Your task to perform on an android device: What is the news today? Image 0: 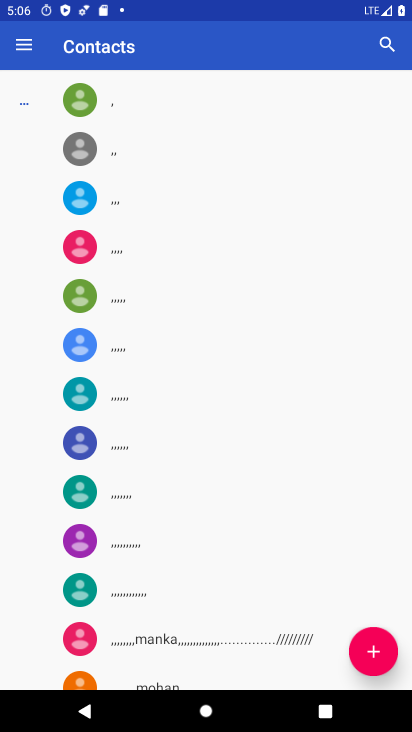
Step 0: drag from (218, 610) to (223, 40)
Your task to perform on an android device: What is the news today? Image 1: 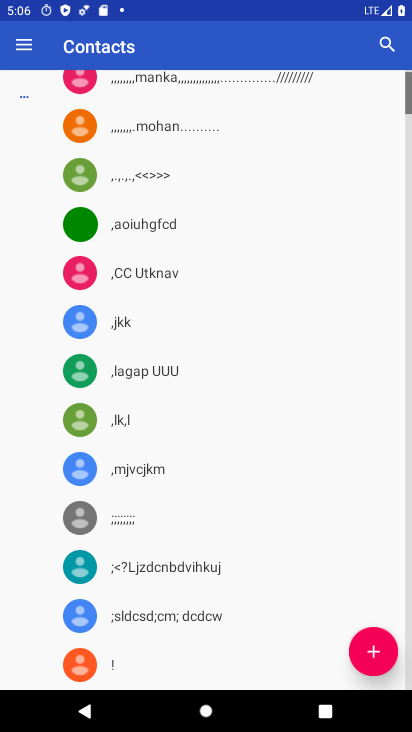
Step 1: press home button
Your task to perform on an android device: What is the news today? Image 2: 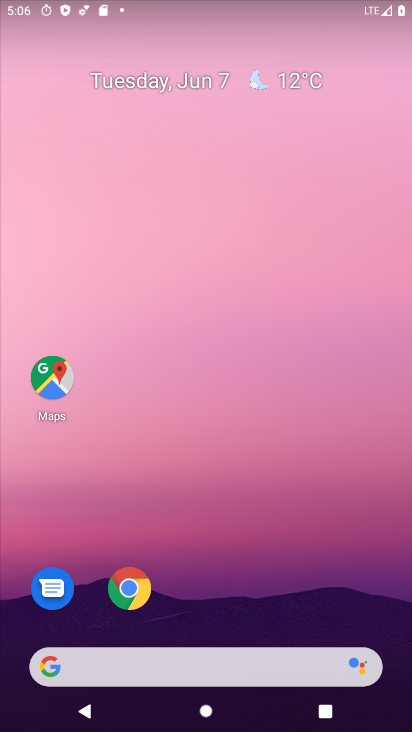
Step 2: drag from (205, 605) to (236, 73)
Your task to perform on an android device: What is the news today? Image 3: 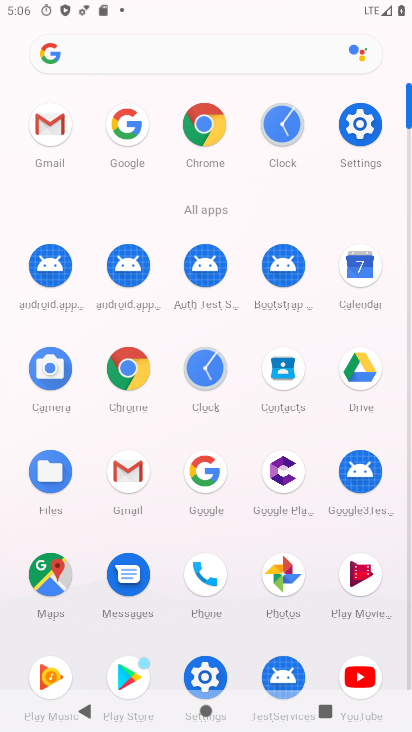
Step 3: click (122, 149)
Your task to perform on an android device: What is the news today? Image 4: 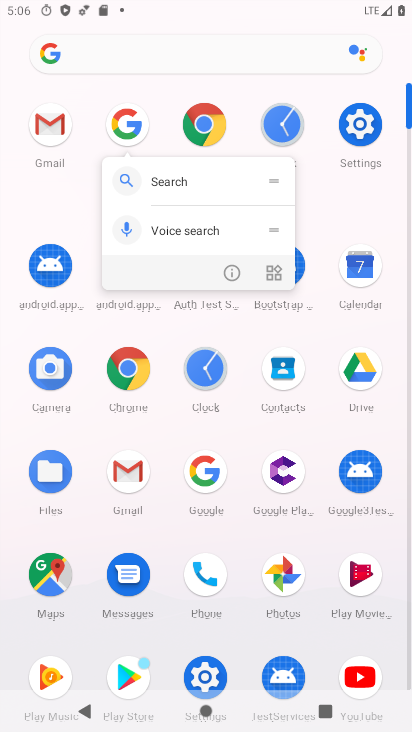
Step 4: click (127, 137)
Your task to perform on an android device: What is the news today? Image 5: 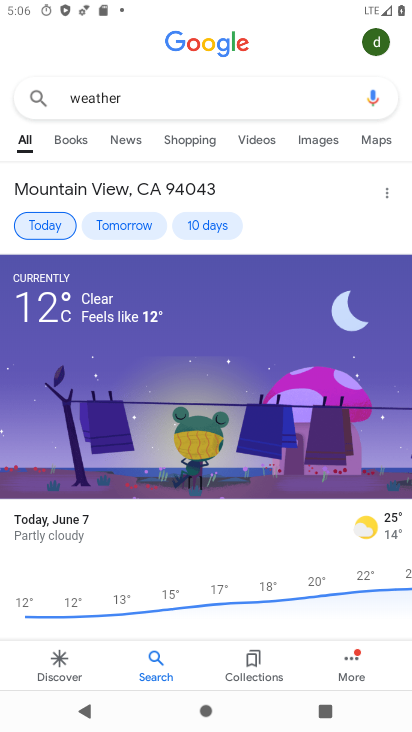
Step 5: click (172, 96)
Your task to perform on an android device: What is the news today? Image 6: 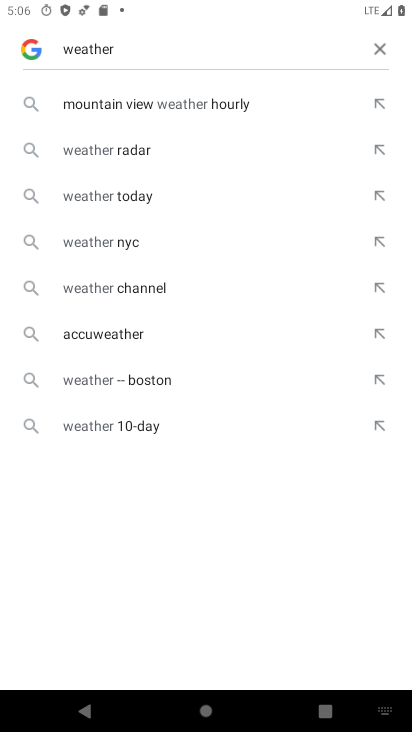
Step 6: click (379, 53)
Your task to perform on an android device: What is the news today? Image 7: 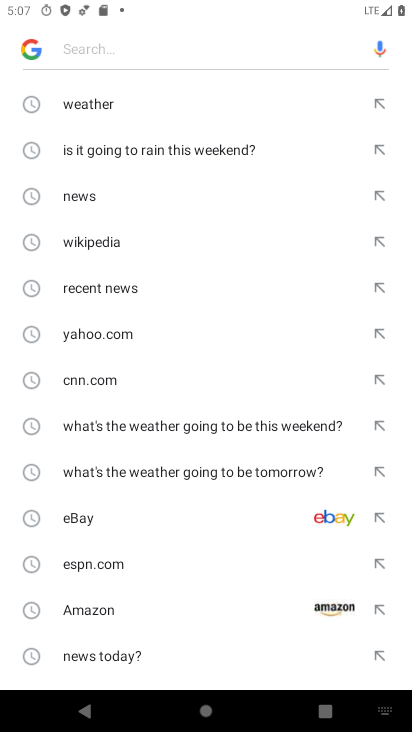
Step 7: type "news today"
Your task to perform on an android device: What is the news today? Image 8: 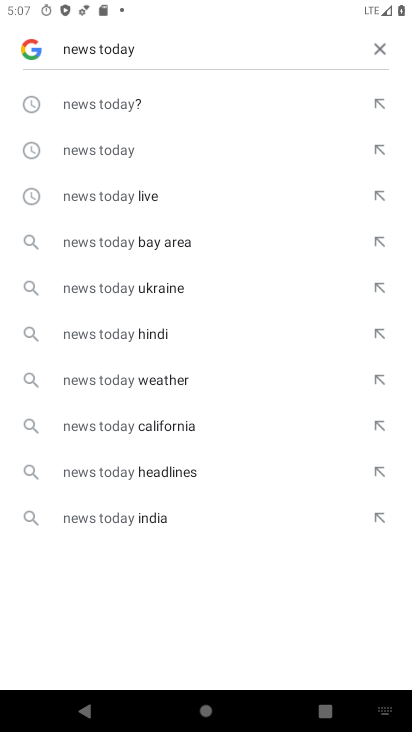
Step 8: click (124, 106)
Your task to perform on an android device: What is the news today? Image 9: 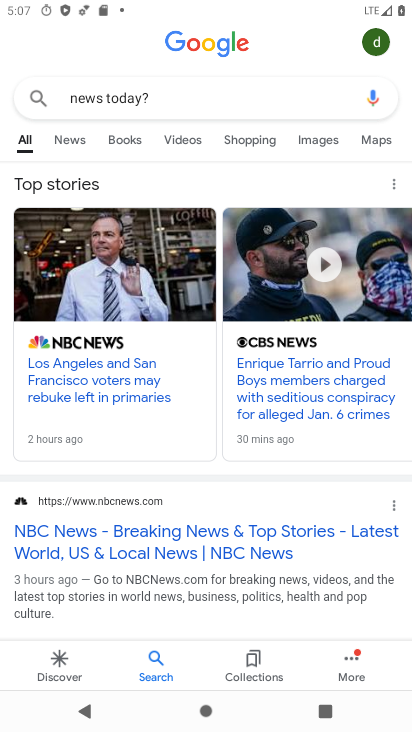
Step 9: task complete